Your task to perform on an android device: Is it going to rain tomorrow? Image 0: 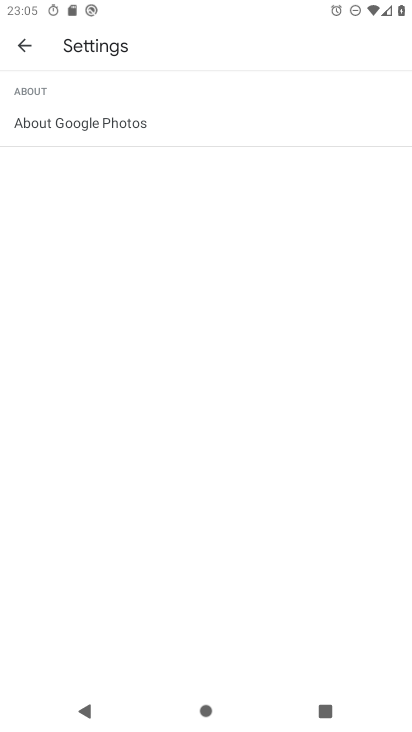
Step 0: press home button
Your task to perform on an android device: Is it going to rain tomorrow? Image 1: 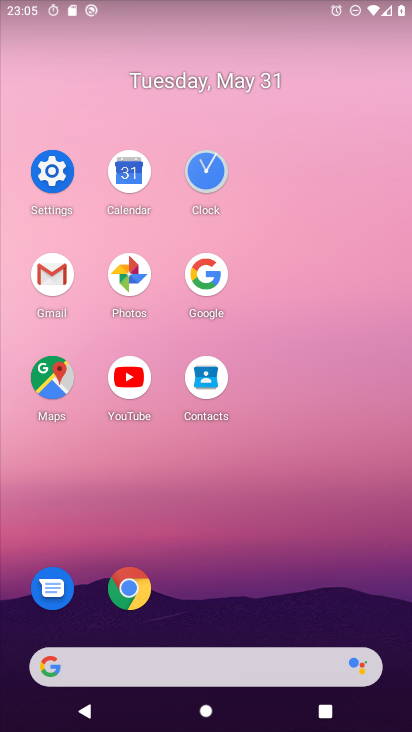
Step 1: click (208, 266)
Your task to perform on an android device: Is it going to rain tomorrow? Image 2: 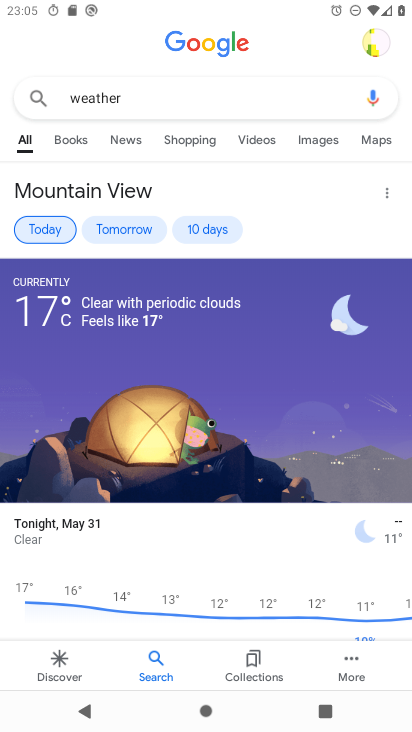
Step 2: click (136, 228)
Your task to perform on an android device: Is it going to rain tomorrow? Image 3: 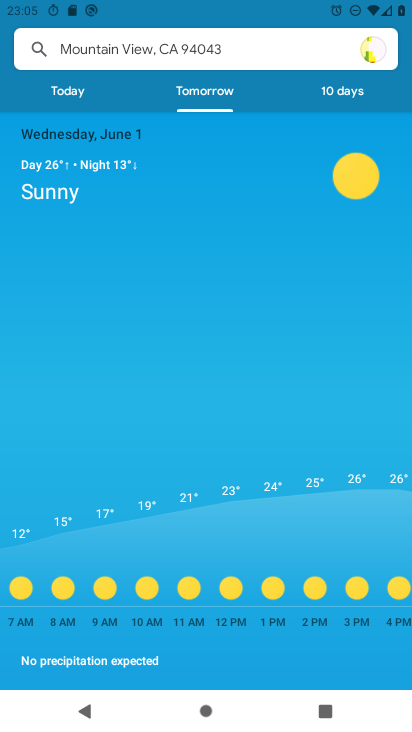
Step 3: task complete